Your task to perform on an android device: change notification settings in the gmail app Image 0: 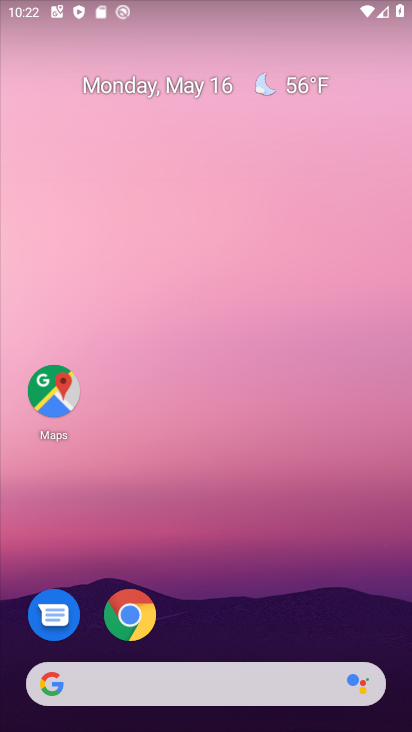
Step 0: drag from (311, 702) to (298, 250)
Your task to perform on an android device: change notification settings in the gmail app Image 1: 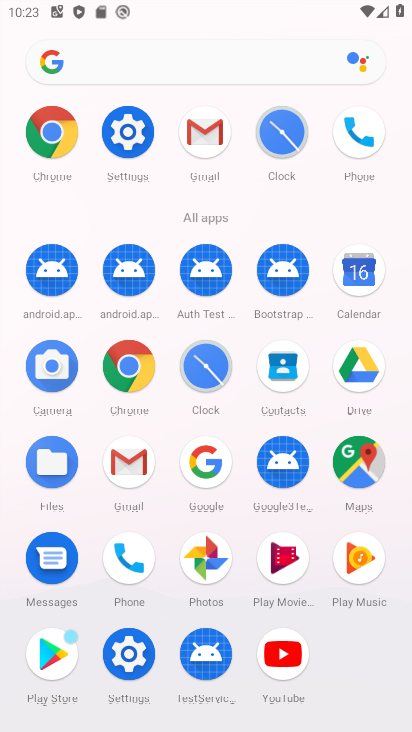
Step 1: click (136, 450)
Your task to perform on an android device: change notification settings in the gmail app Image 2: 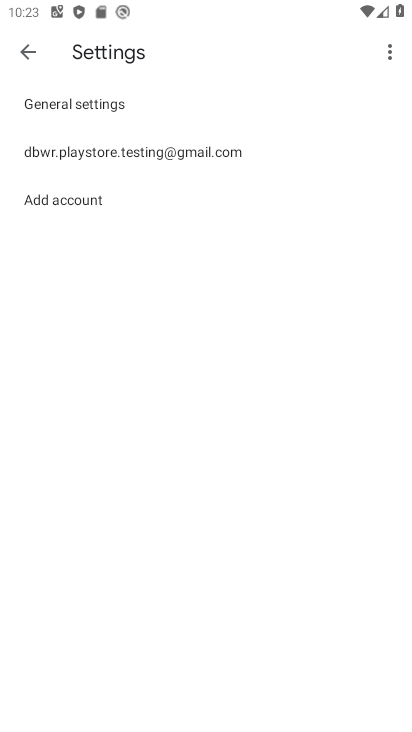
Step 2: click (94, 173)
Your task to perform on an android device: change notification settings in the gmail app Image 3: 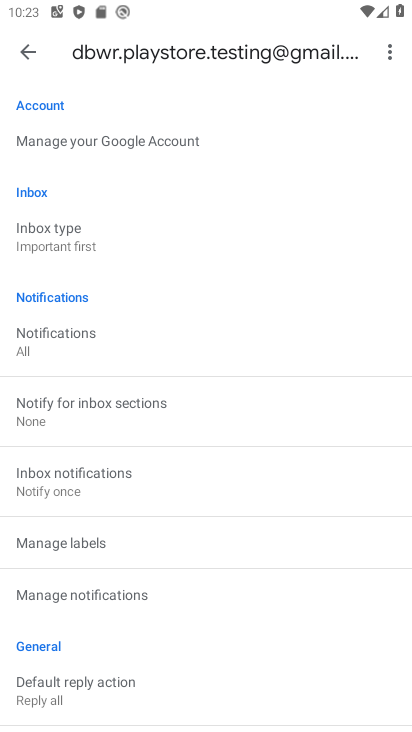
Step 3: click (46, 346)
Your task to perform on an android device: change notification settings in the gmail app Image 4: 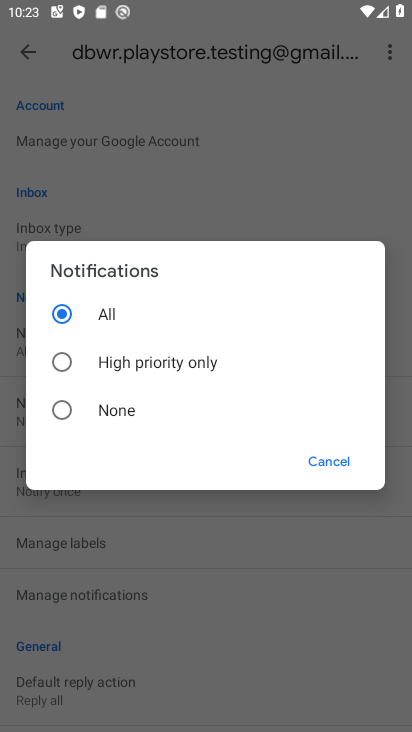
Step 4: click (203, 363)
Your task to perform on an android device: change notification settings in the gmail app Image 5: 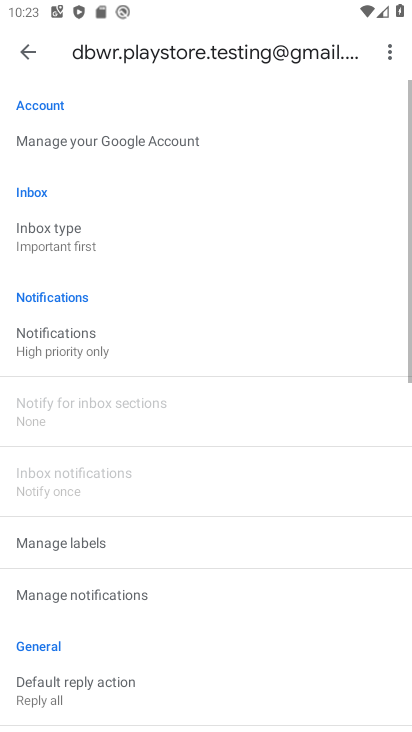
Step 5: task complete